Your task to perform on an android device: see sites visited before in the chrome app Image 0: 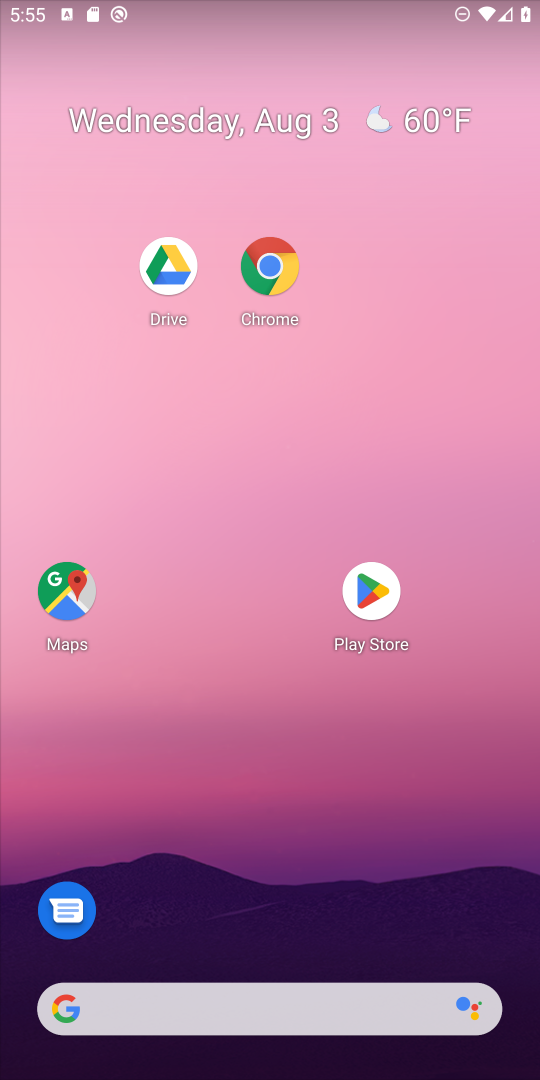
Step 0: drag from (468, 644) to (532, 618)
Your task to perform on an android device: see sites visited before in the chrome app Image 1: 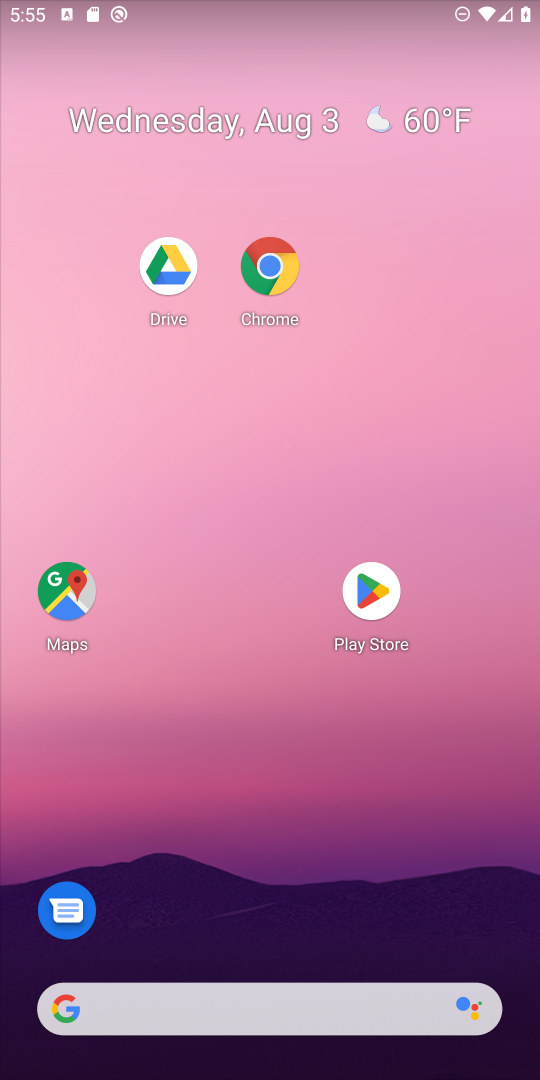
Step 1: drag from (224, 988) to (508, 813)
Your task to perform on an android device: see sites visited before in the chrome app Image 2: 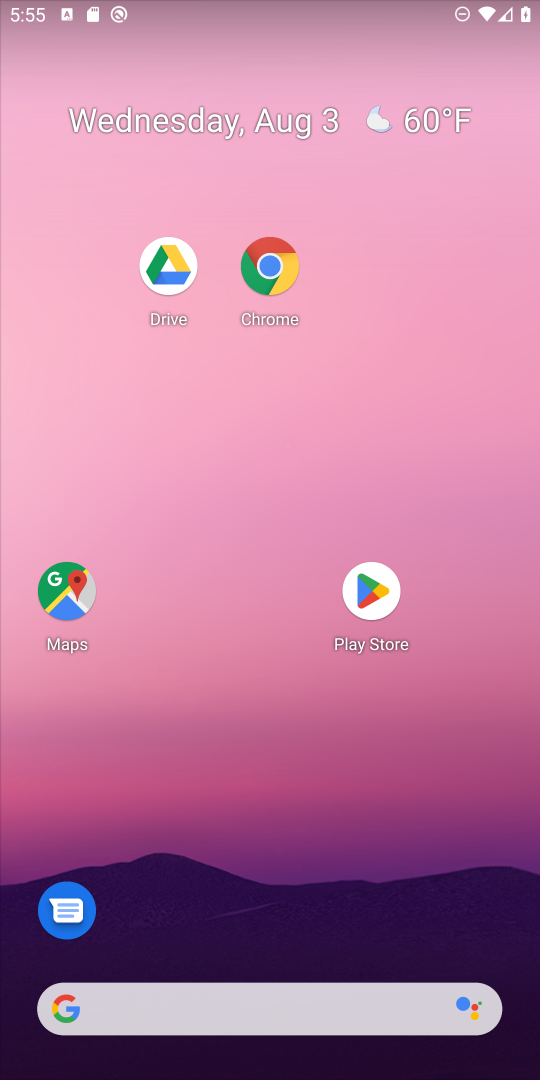
Step 2: drag from (315, 767) to (373, 26)
Your task to perform on an android device: see sites visited before in the chrome app Image 3: 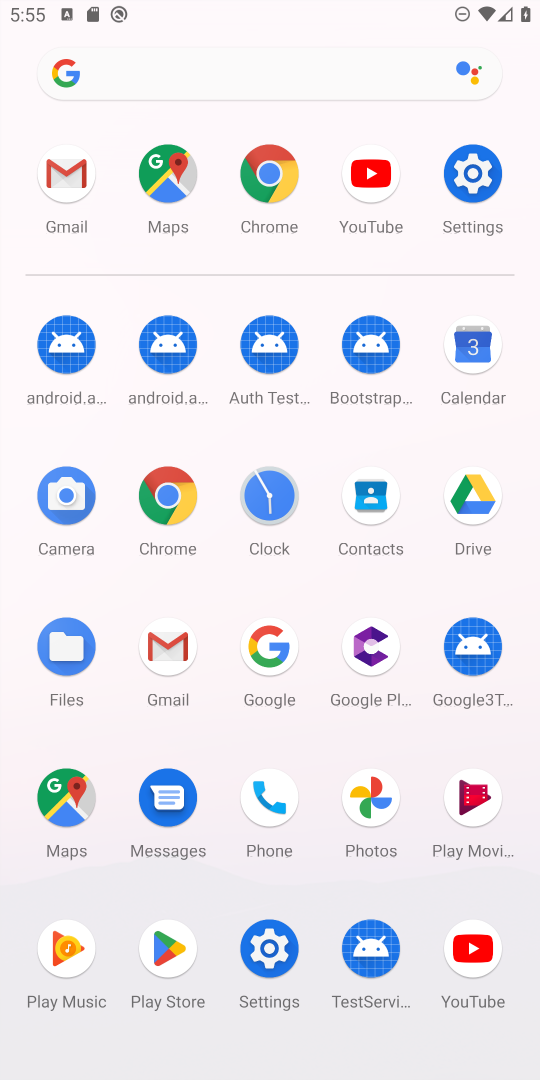
Step 3: click (158, 497)
Your task to perform on an android device: see sites visited before in the chrome app Image 4: 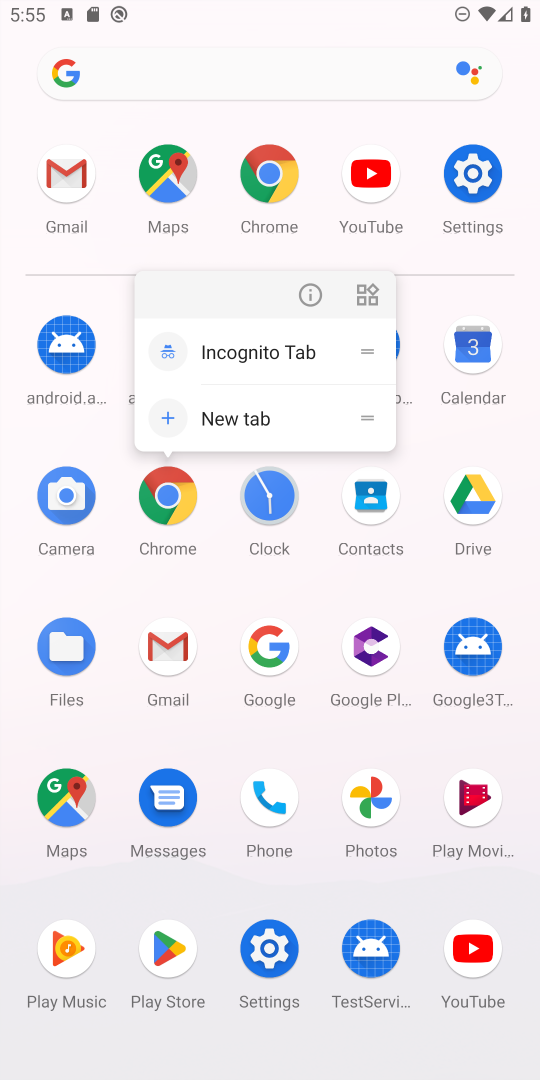
Step 4: click (163, 479)
Your task to perform on an android device: see sites visited before in the chrome app Image 5: 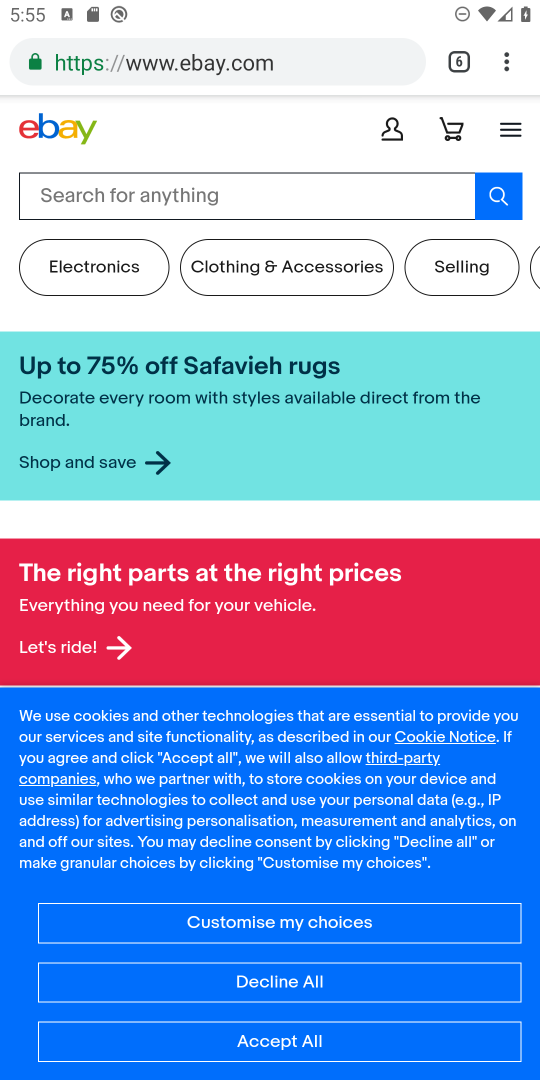
Step 5: task complete